Your task to perform on an android device: What's the weather? Image 0: 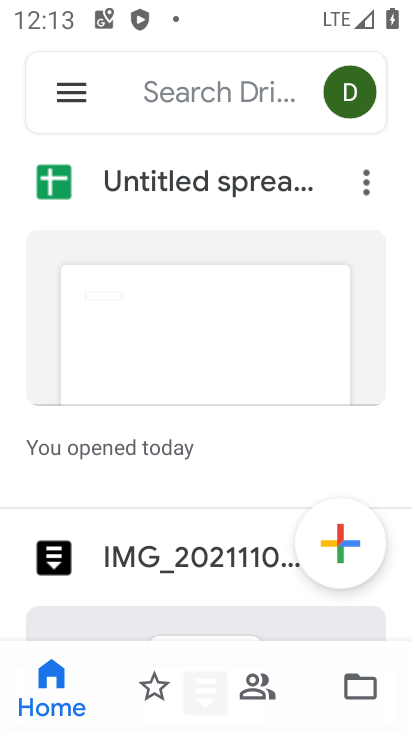
Step 0: press home button
Your task to perform on an android device: What's the weather? Image 1: 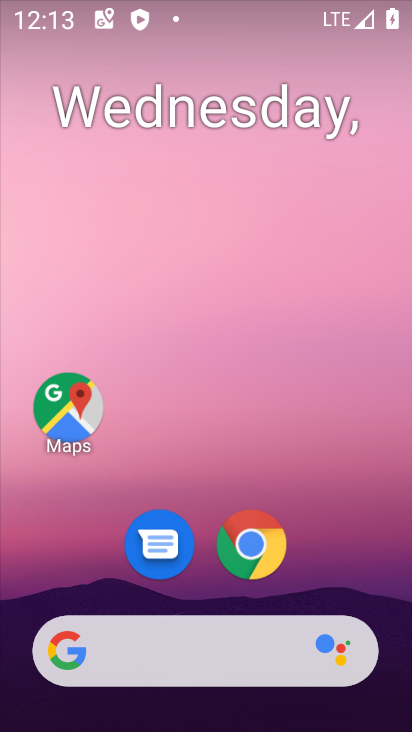
Step 1: click (181, 643)
Your task to perform on an android device: What's the weather? Image 2: 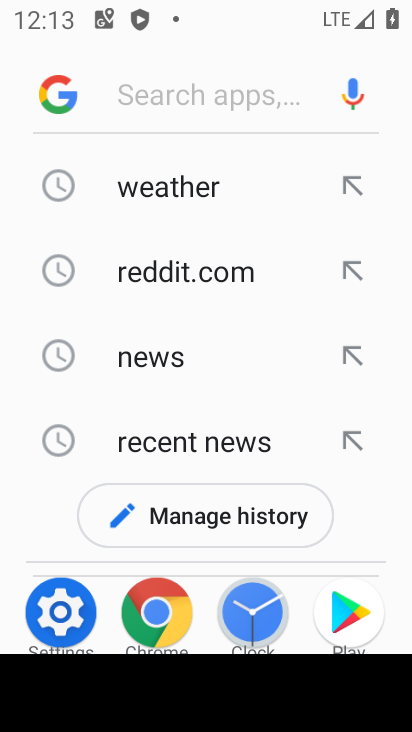
Step 2: click (141, 187)
Your task to perform on an android device: What's the weather? Image 3: 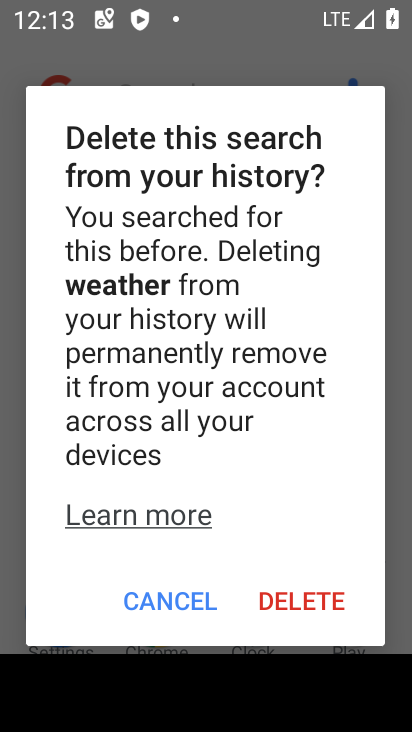
Step 3: click (197, 606)
Your task to perform on an android device: What's the weather? Image 4: 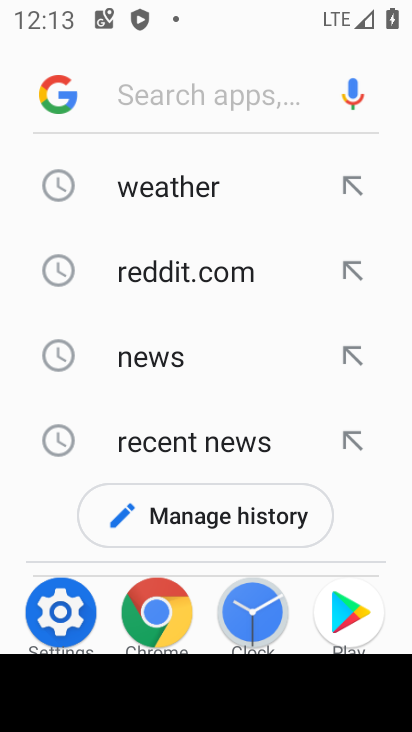
Step 4: click (347, 187)
Your task to perform on an android device: What's the weather? Image 5: 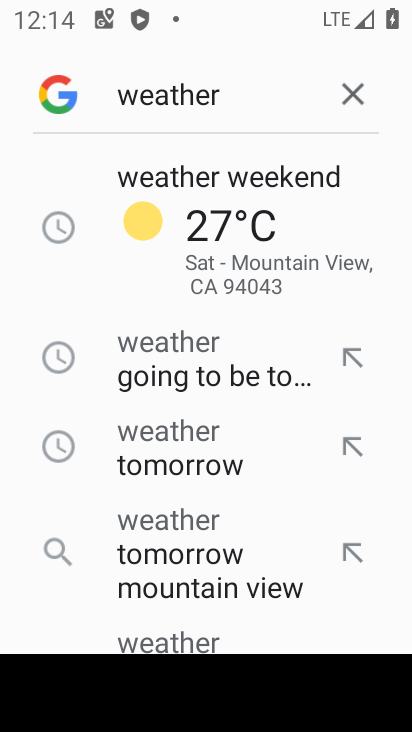
Step 5: click (313, 236)
Your task to perform on an android device: What's the weather? Image 6: 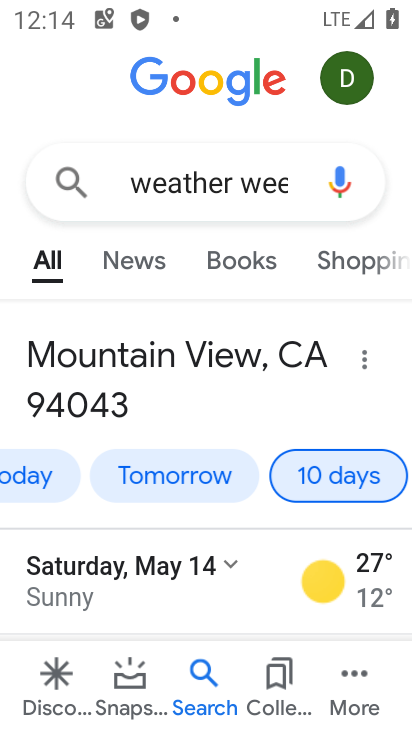
Step 6: click (24, 475)
Your task to perform on an android device: What's the weather? Image 7: 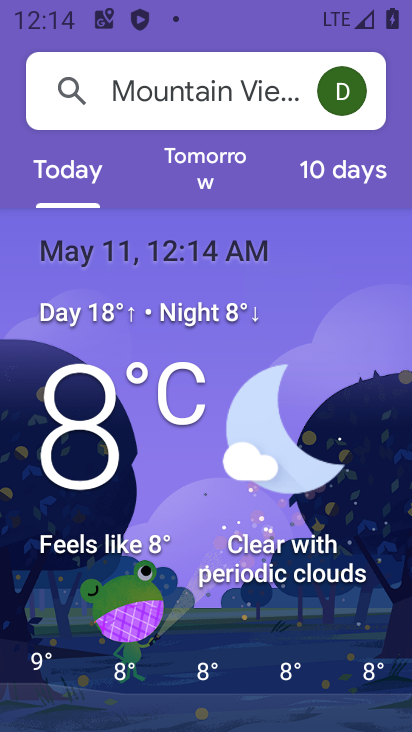
Step 7: task complete